Your task to perform on an android device: install app "Google Find My Device" Image 0: 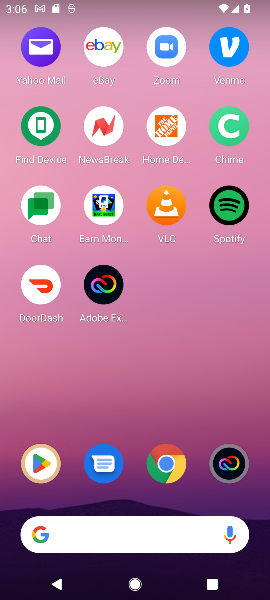
Step 0: press home button
Your task to perform on an android device: install app "Google Find My Device" Image 1: 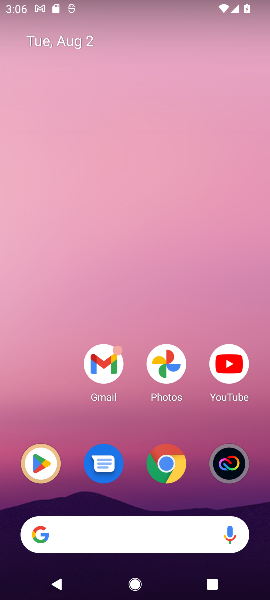
Step 1: click (30, 465)
Your task to perform on an android device: install app "Google Find My Device" Image 2: 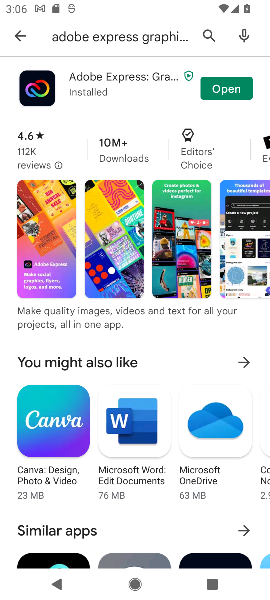
Step 2: click (206, 33)
Your task to perform on an android device: install app "Google Find My Device" Image 3: 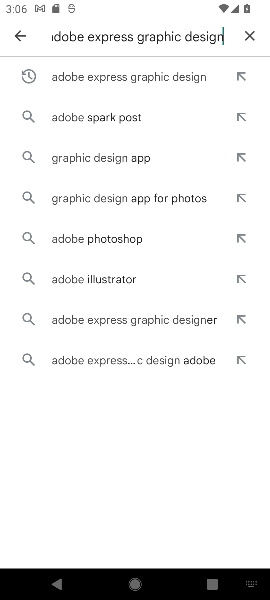
Step 3: click (251, 29)
Your task to perform on an android device: install app "Google Find My Device" Image 4: 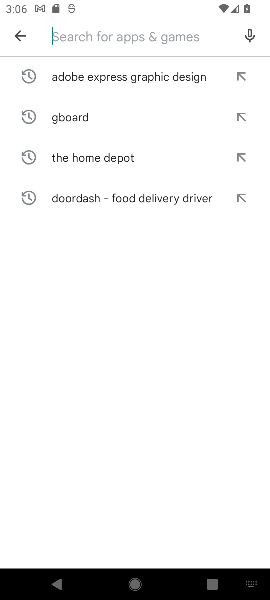
Step 4: type "Google Find My Device"
Your task to perform on an android device: install app "Google Find My Device" Image 5: 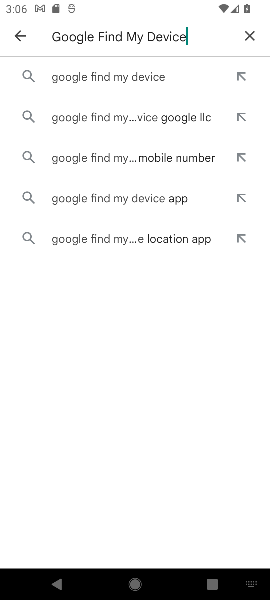
Step 5: click (103, 74)
Your task to perform on an android device: install app "Google Find My Device" Image 6: 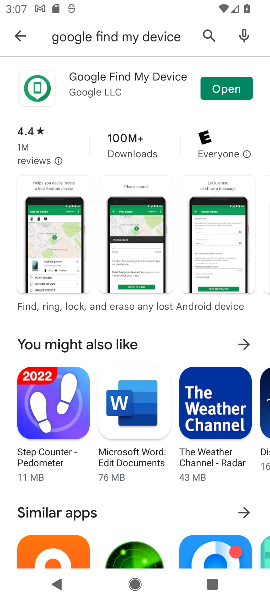
Step 6: task complete